Your task to perform on an android device: Open Yahoo.com Image 0: 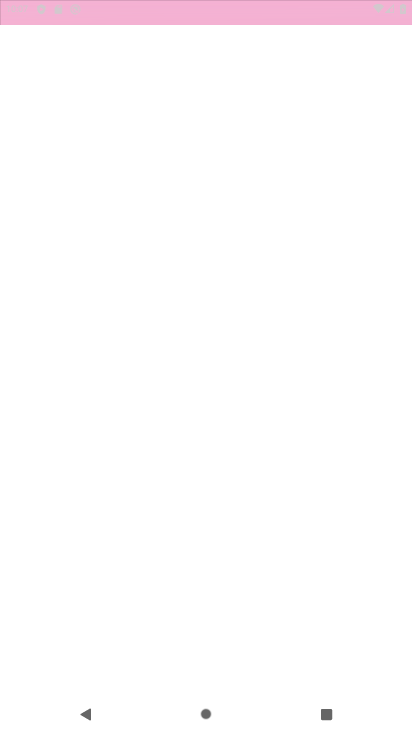
Step 0: click (170, 508)
Your task to perform on an android device: Open Yahoo.com Image 1: 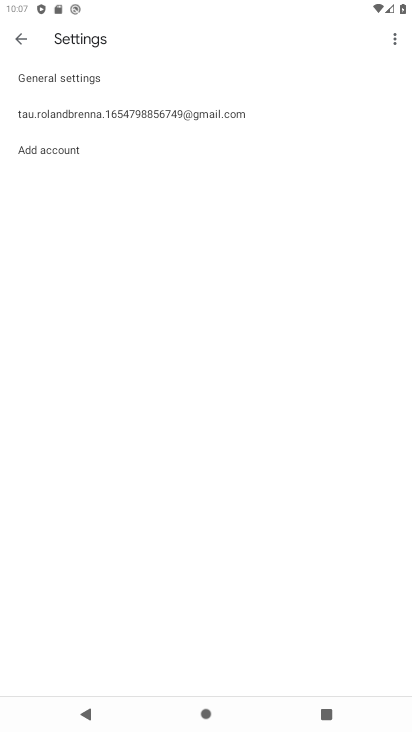
Step 1: press home button
Your task to perform on an android device: Open Yahoo.com Image 2: 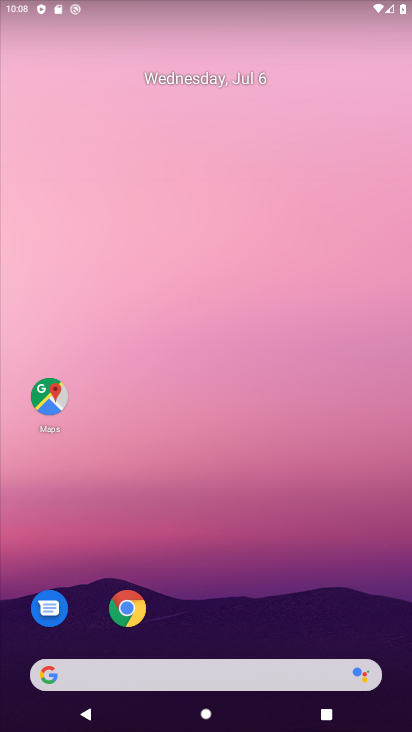
Step 2: click (133, 608)
Your task to perform on an android device: Open Yahoo.com Image 3: 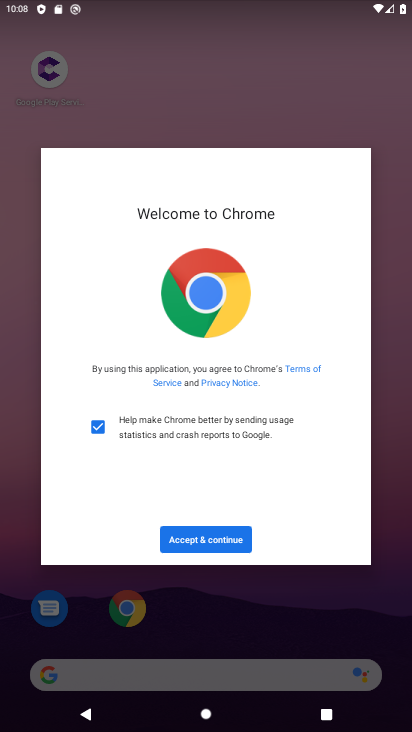
Step 3: click (207, 536)
Your task to perform on an android device: Open Yahoo.com Image 4: 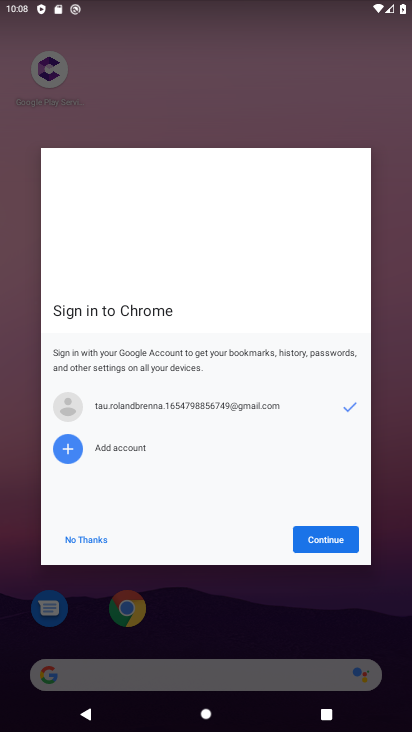
Step 4: click (326, 545)
Your task to perform on an android device: Open Yahoo.com Image 5: 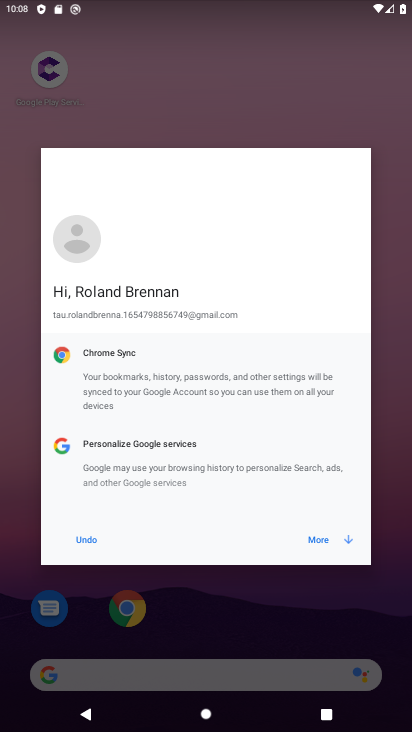
Step 5: click (331, 544)
Your task to perform on an android device: Open Yahoo.com Image 6: 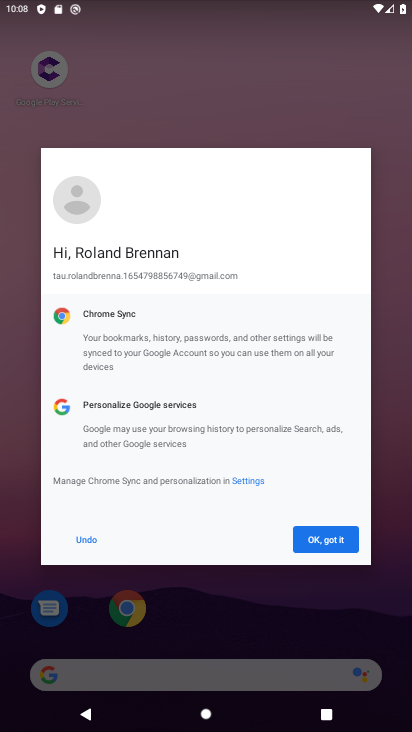
Step 6: click (331, 544)
Your task to perform on an android device: Open Yahoo.com Image 7: 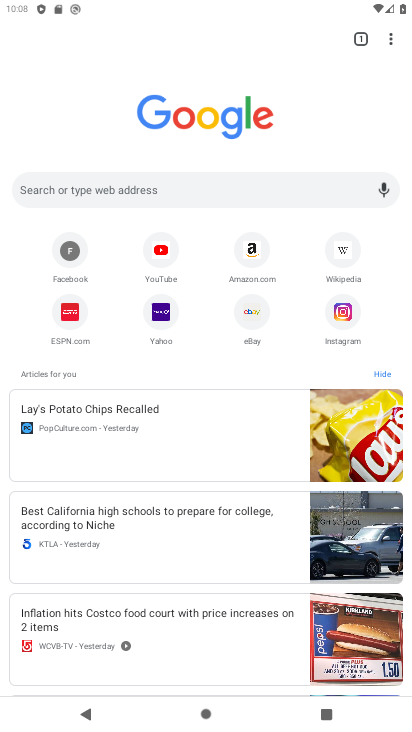
Step 7: click (157, 306)
Your task to perform on an android device: Open Yahoo.com Image 8: 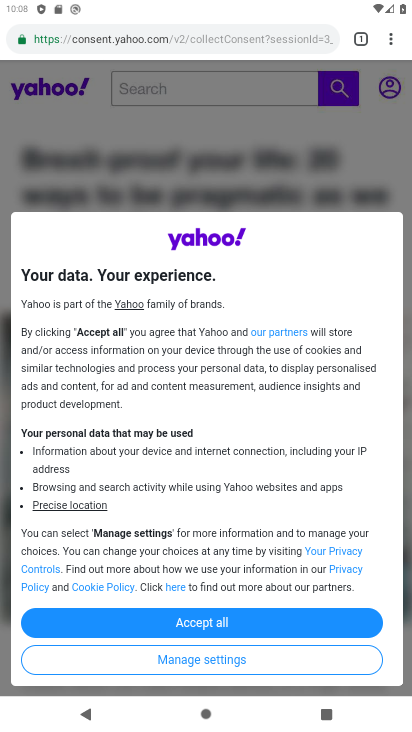
Step 8: click (161, 626)
Your task to perform on an android device: Open Yahoo.com Image 9: 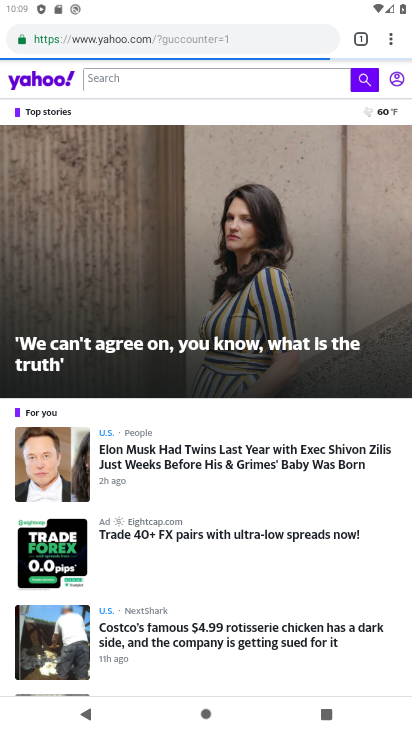
Step 9: task complete